Your task to perform on an android device: delete browsing data in the chrome app Image 0: 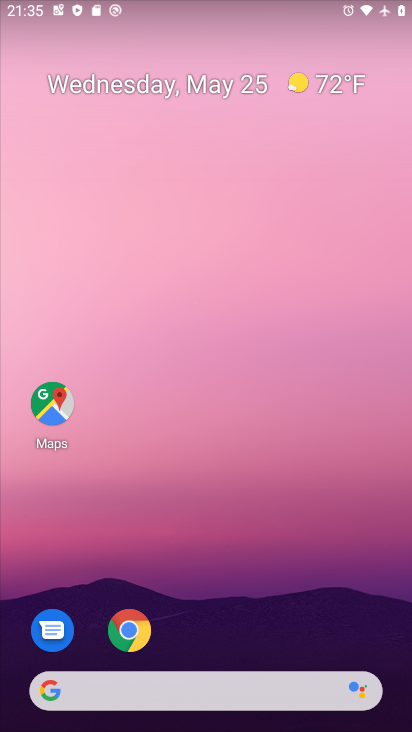
Step 0: click (136, 631)
Your task to perform on an android device: delete browsing data in the chrome app Image 1: 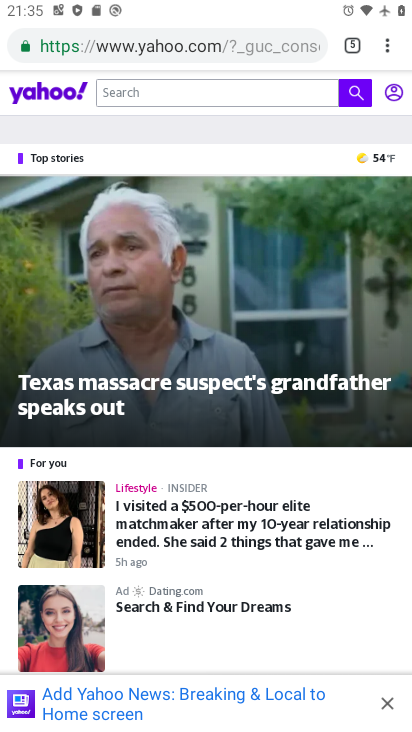
Step 1: click (387, 44)
Your task to perform on an android device: delete browsing data in the chrome app Image 2: 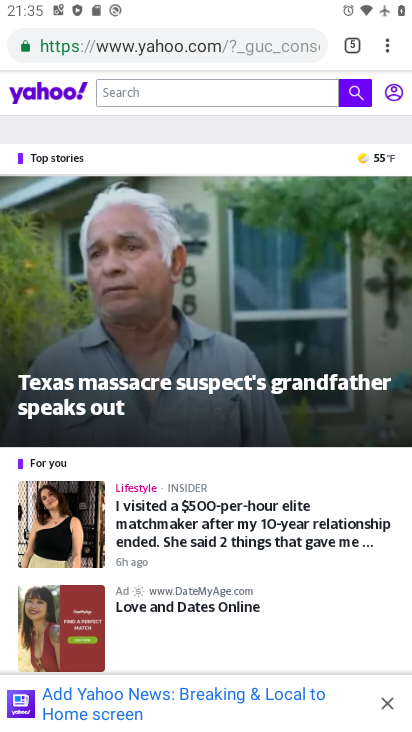
Step 2: click (379, 44)
Your task to perform on an android device: delete browsing data in the chrome app Image 3: 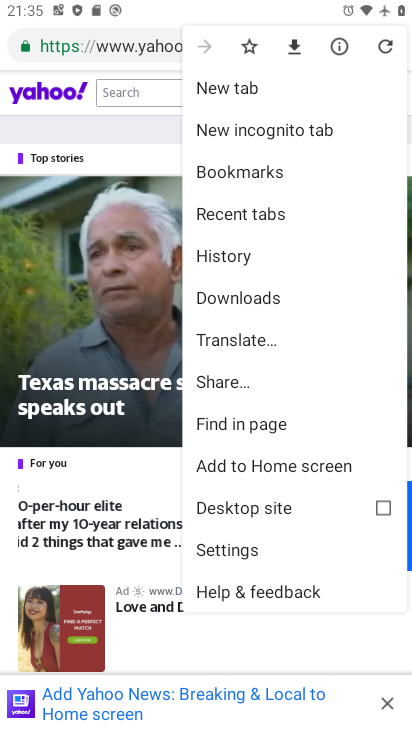
Step 3: click (261, 257)
Your task to perform on an android device: delete browsing data in the chrome app Image 4: 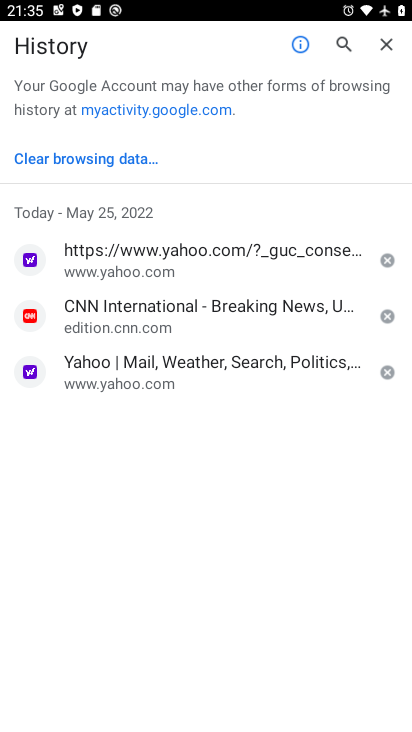
Step 4: click (92, 158)
Your task to perform on an android device: delete browsing data in the chrome app Image 5: 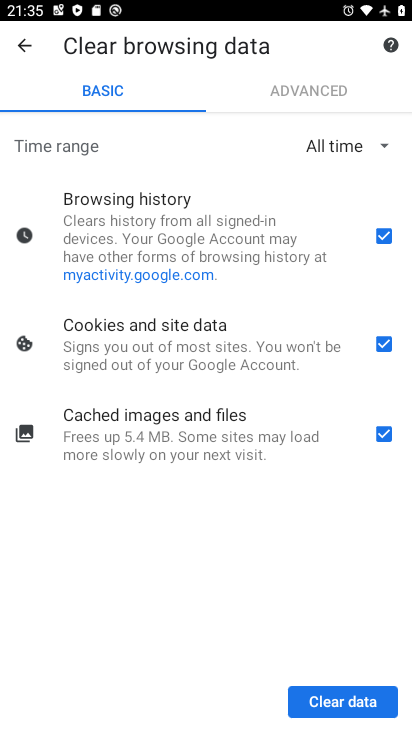
Step 5: click (349, 689)
Your task to perform on an android device: delete browsing data in the chrome app Image 6: 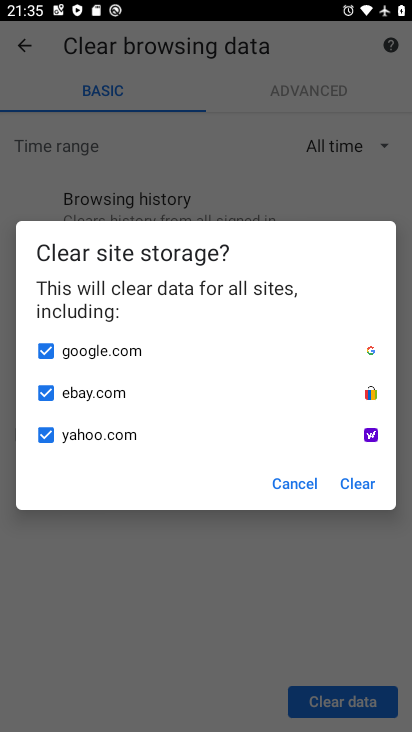
Step 6: click (356, 483)
Your task to perform on an android device: delete browsing data in the chrome app Image 7: 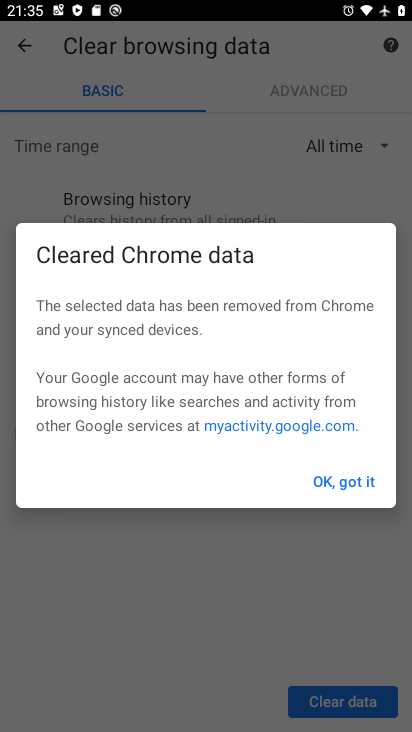
Step 7: task complete